Your task to perform on an android device: Turn off the flashlight Image 0: 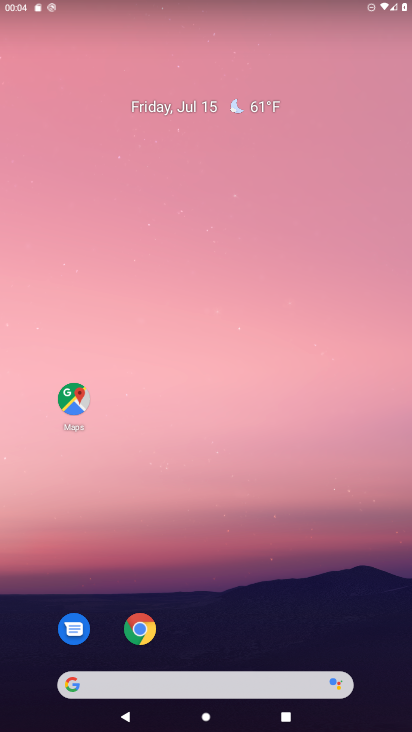
Step 0: drag from (248, 621) to (403, 331)
Your task to perform on an android device: Turn off the flashlight Image 1: 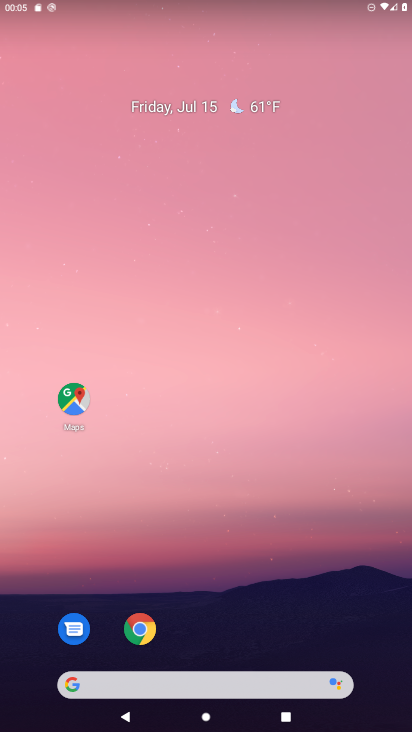
Step 1: click (130, 172)
Your task to perform on an android device: Turn off the flashlight Image 2: 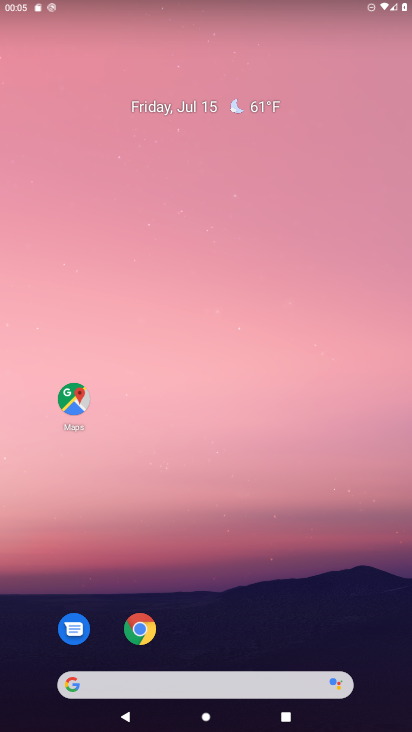
Step 2: drag from (198, 632) to (309, 66)
Your task to perform on an android device: Turn off the flashlight Image 3: 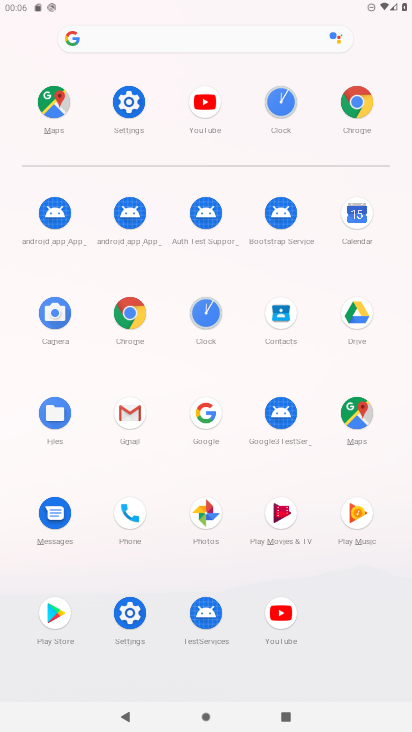
Step 3: click (132, 97)
Your task to perform on an android device: Turn off the flashlight Image 4: 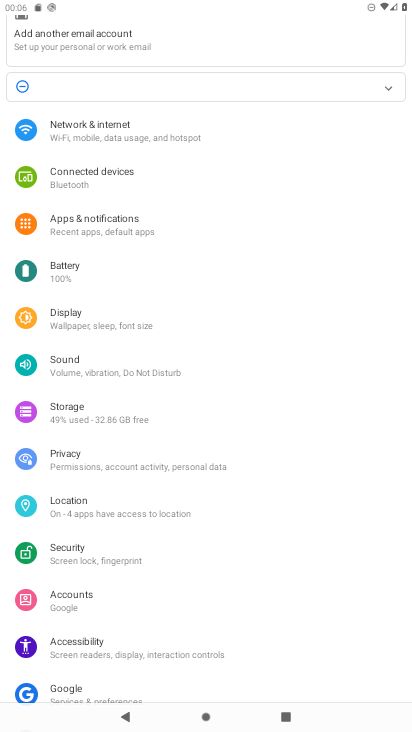
Step 4: task complete